Your task to perform on an android device: Open Google Maps Image 0: 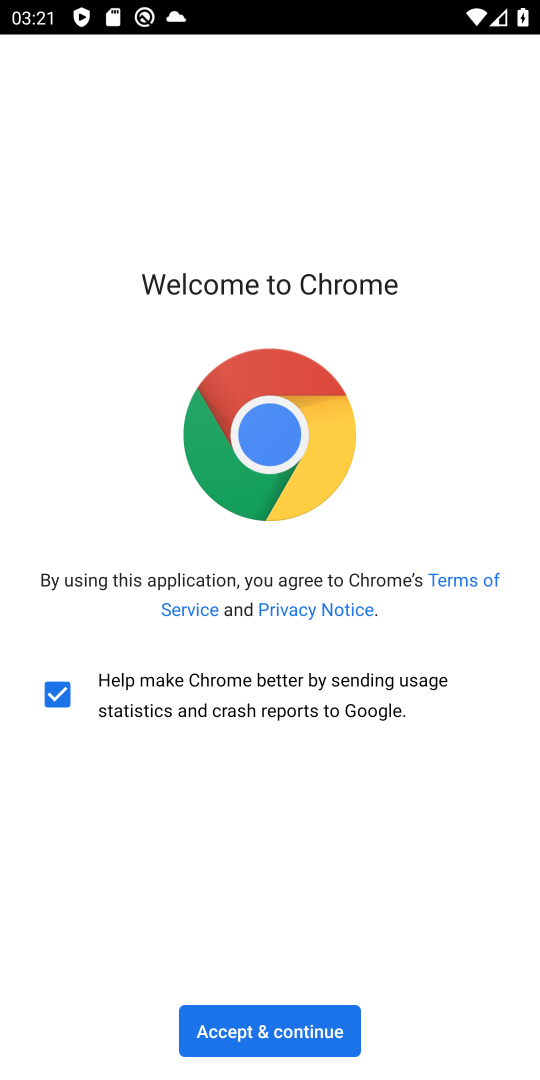
Step 0: press home button
Your task to perform on an android device: Open Google Maps Image 1: 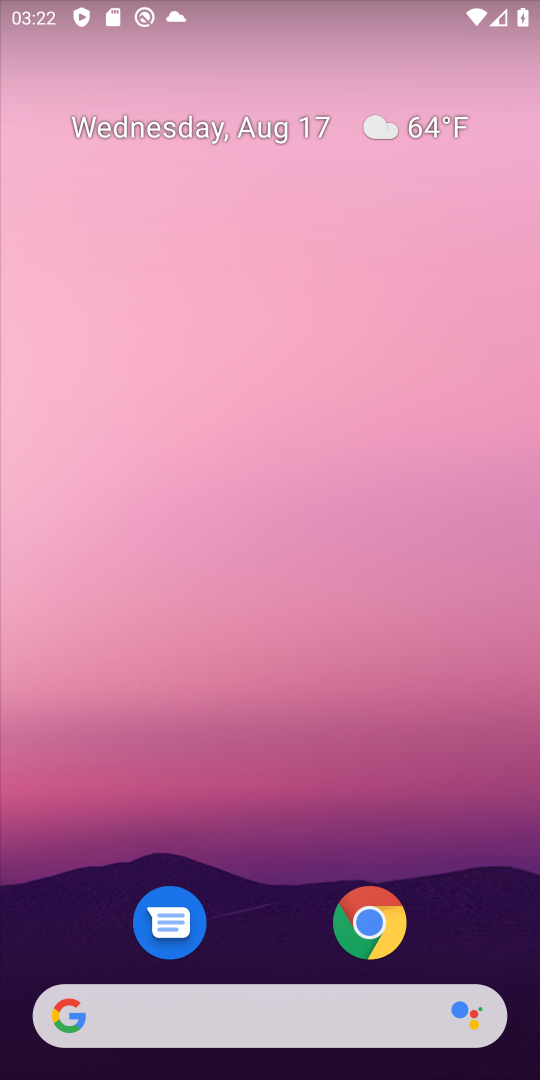
Step 1: drag from (104, 826) to (423, 118)
Your task to perform on an android device: Open Google Maps Image 2: 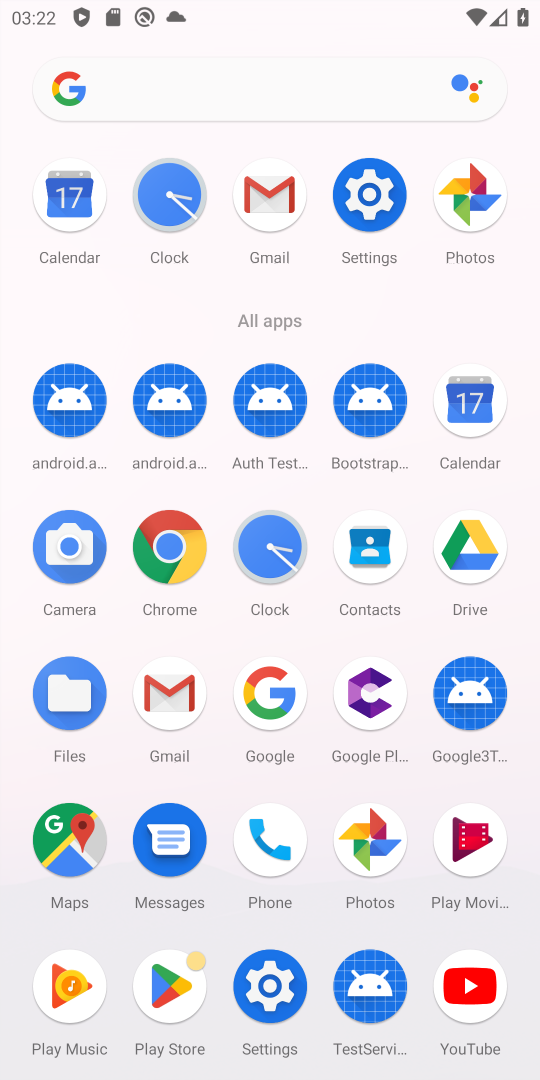
Step 2: click (91, 841)
Your task to perform on an android device: Open Google Maps Image 3: 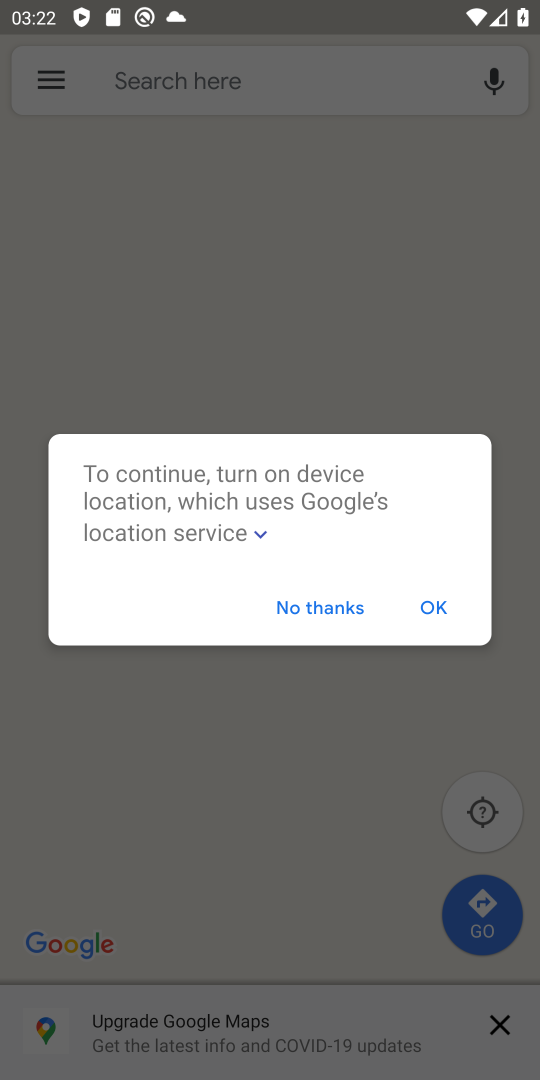
Step 3: click (490, 1035)
Your task to perform on an android device: Open Google Maps Image 4: 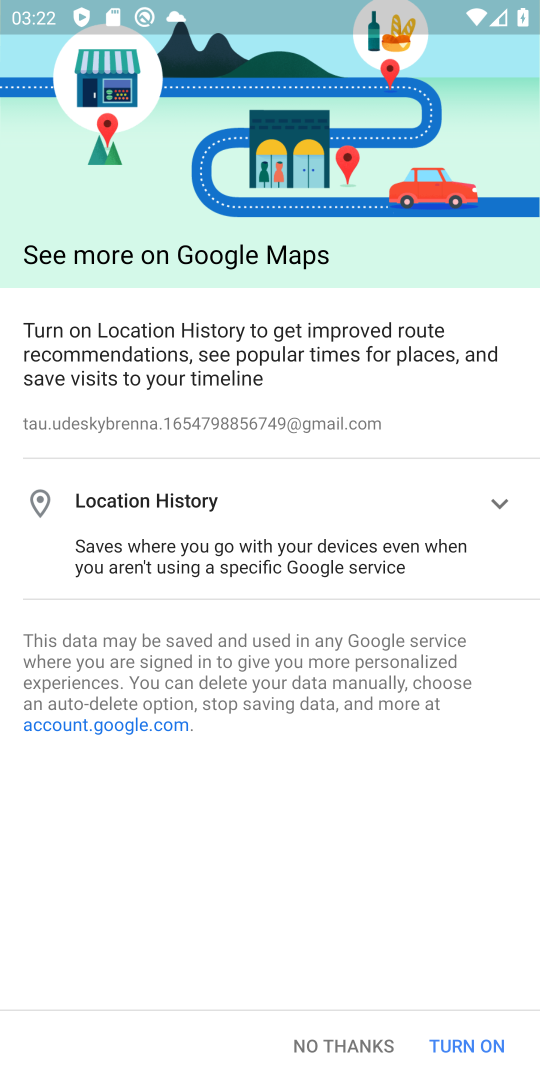
Step 4: click (380, 1049)
Your task to perform on an android device: Open Google Maps Image 5: 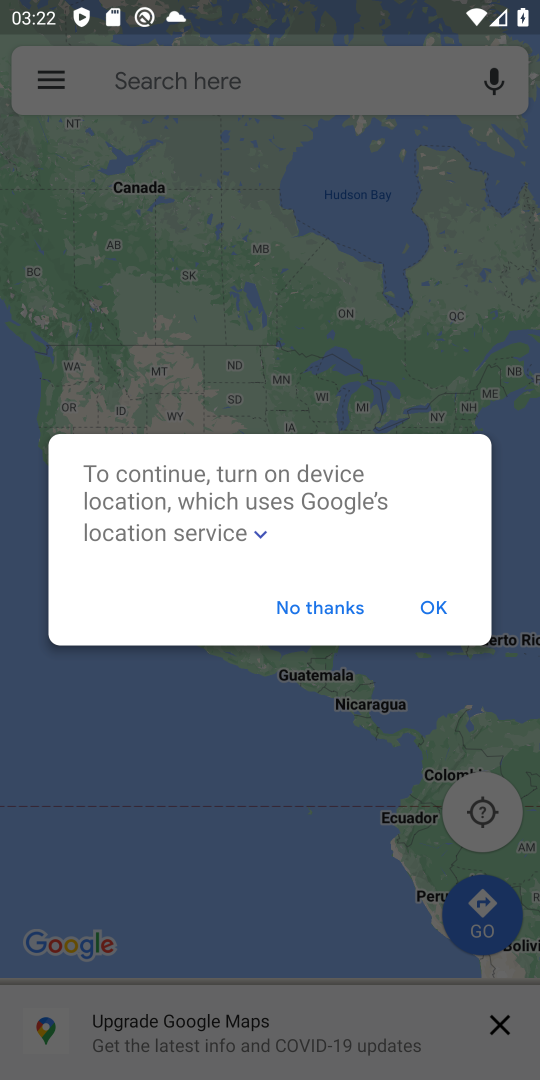
Step 5: click (253, 601)
Your task to perform on an android device: Open Google Maps Image 6: 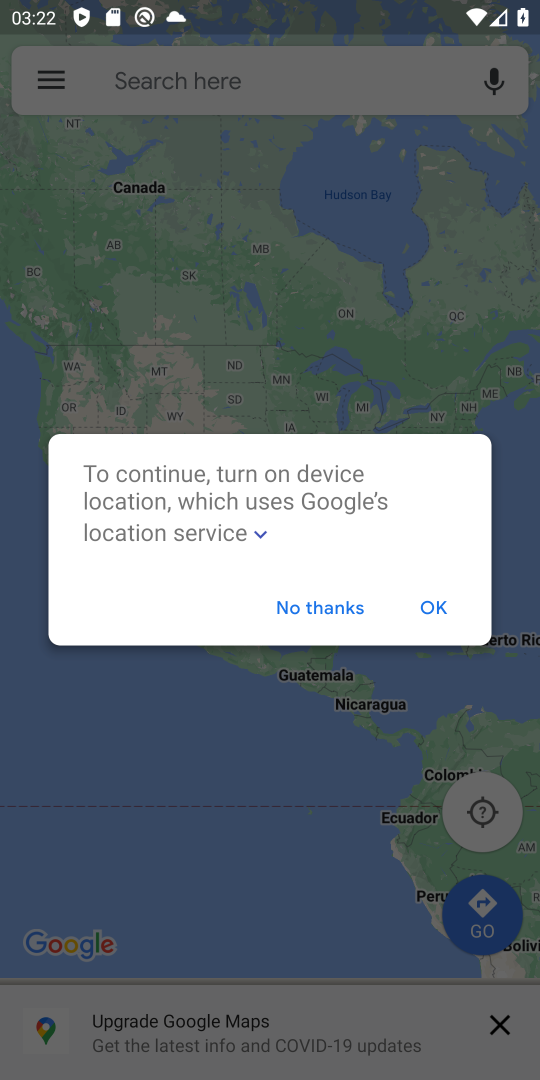
Step 6: click (306, 605)
Your task to perform on an android device: Open Google Maps Image 7: 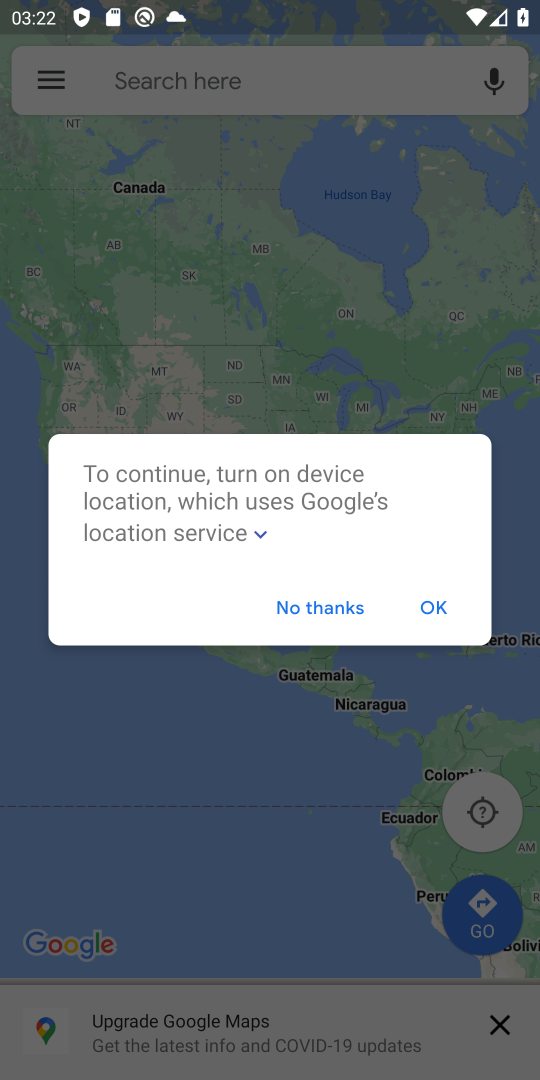
Step 7: click (434, 598)
Your task to perform on an android device: Open Google Maps Image 8: 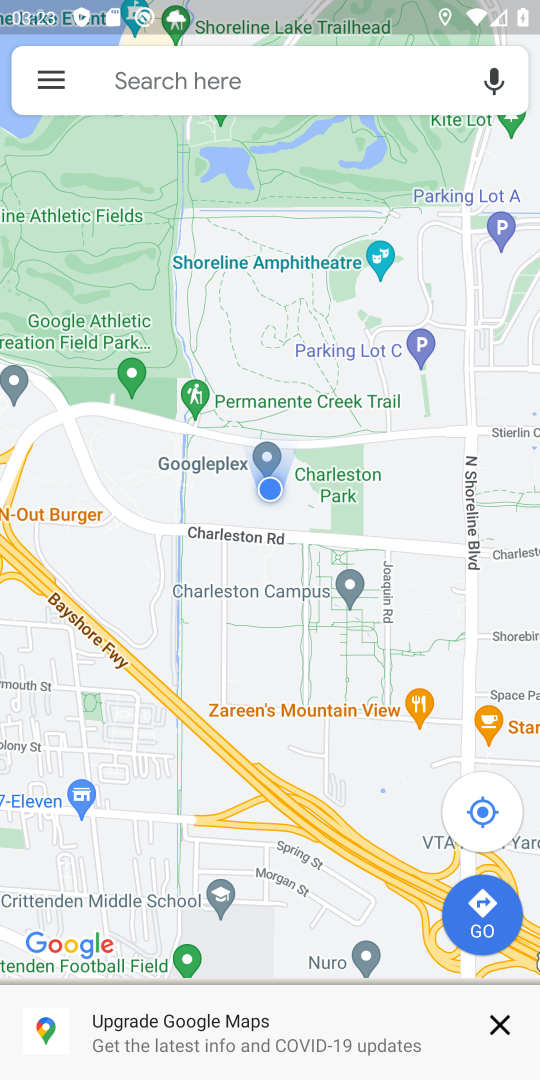
Step 8: task complete